Your task to perform on an android device: Go to location settings Image 0: 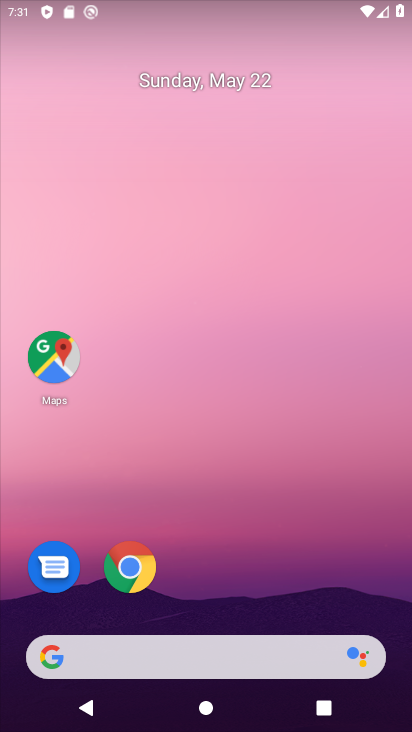
Step 0: drag from (169, 665) to (228, 123)
Your task to perform on an android device: Go to location settings Image 1: 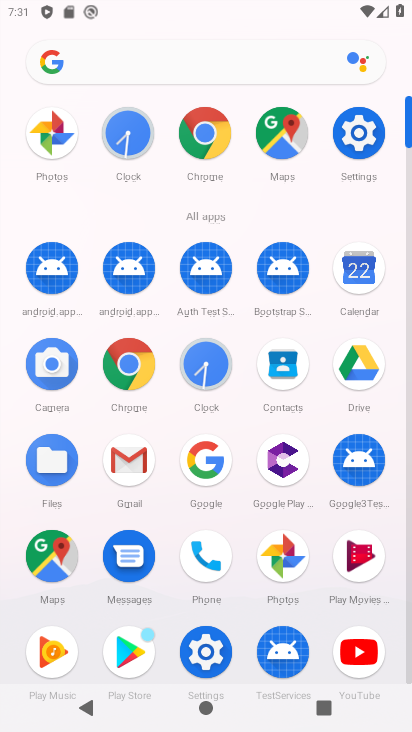
Step 1: click (344, 137)
Your task to perform on an android device: Go to location settings Image 2: 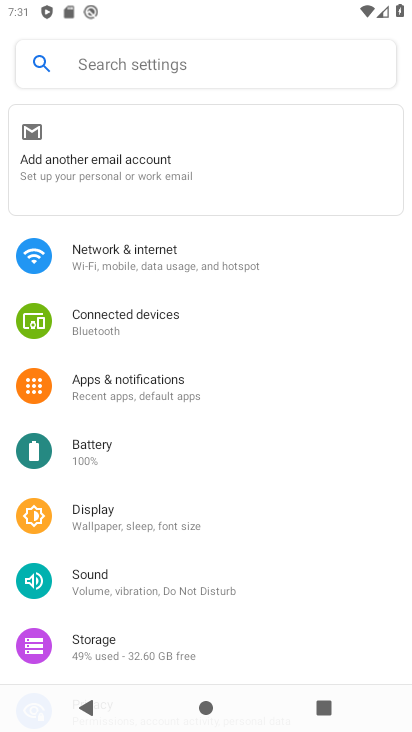
Step 2: drag from (178, 600) to (228, 146)
Your task to perform on an android device: Go to location settings Image 3: 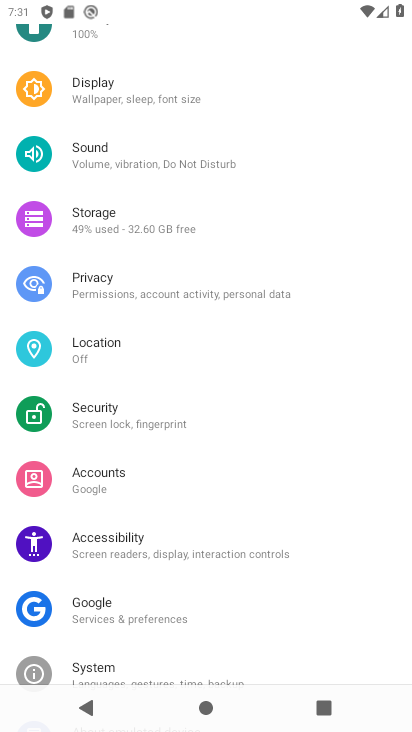
Step 3: click (59, 348)
Your task to perform on an android device: Go to location settings Image 4: 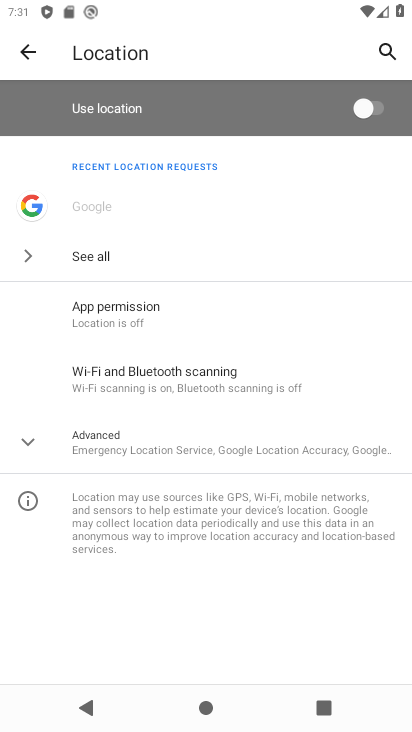
Step 4: task complete